Your task to perform on an android device: open the mobile data screen to see how much data has been used Image 0: 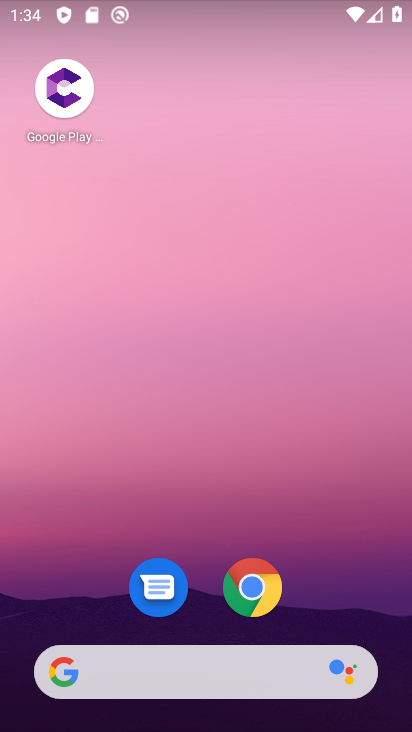
Step 0: drag from (306, 596) to (298, 0)
Your task to perform on an android device: open the mobile data screen to see how much data has been used Image 1: 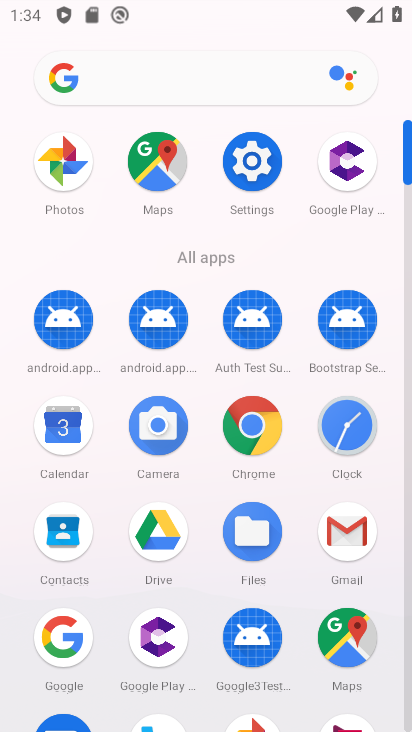
Step 1: click (234, 165)
Your task to perform on an android device: open the mobile data screen to see how much data has been used Image 2: 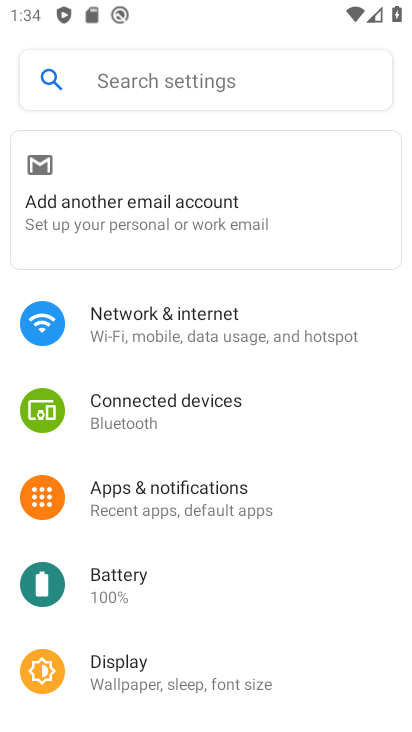
Step 2: click (122, 341)
Your task to perform on an android device: open the mobile data screen to see how much data has been used Image 3: 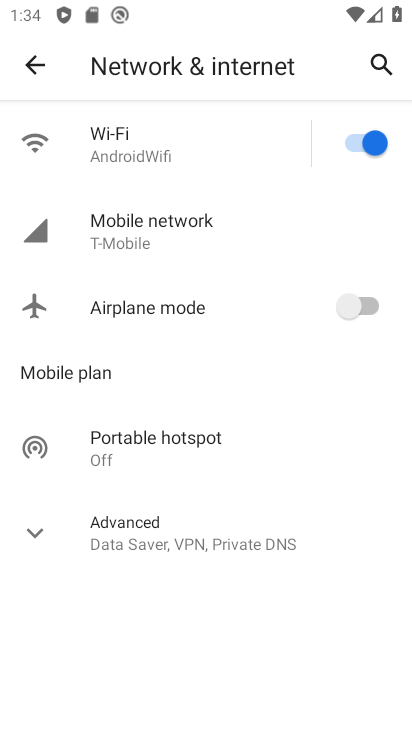
Step 3: click (139, 238)
Your task to perform on an android device: open the mobile data screen to see how much data has been used Image 4: 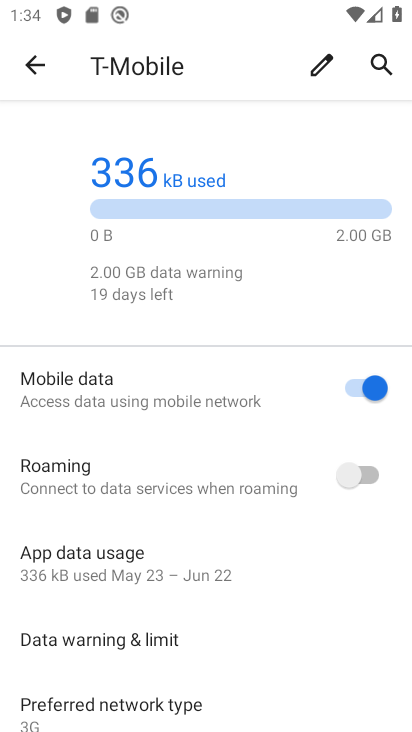
Step 4: click (94, 553)
Your task to perform on an android device: open the mobile data screen to see how much data has been used Image 5: 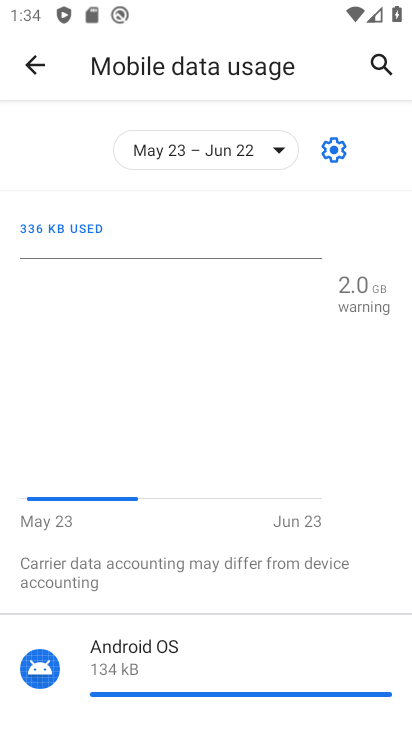
Step 5: task complete